Your task to perform on an android device: check battery use Image 0: 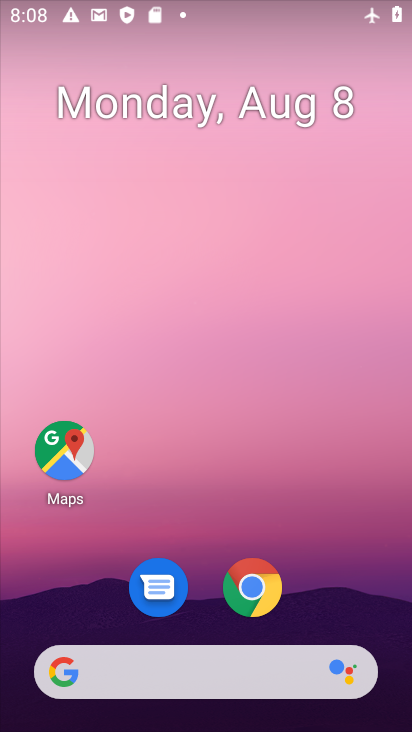
Step 0: press home button
Your task to perform on an android device: check battery use Image 1: 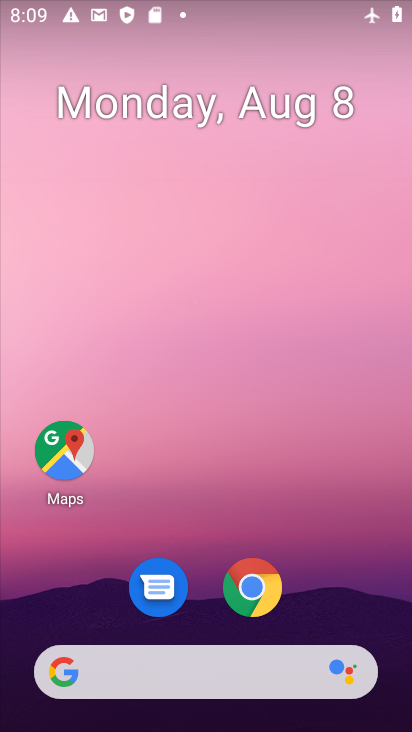
Step 1: drag from (223, 644) to (250, 345)
Your task to perform on an android device: check battery use Image 2: 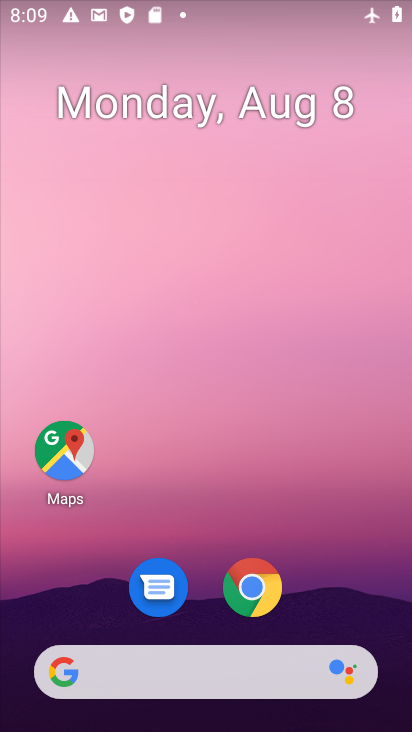
Step 2: drag from (183, 640) to (261, 13)
Your task to perform on an android device: check battery use Image 3: 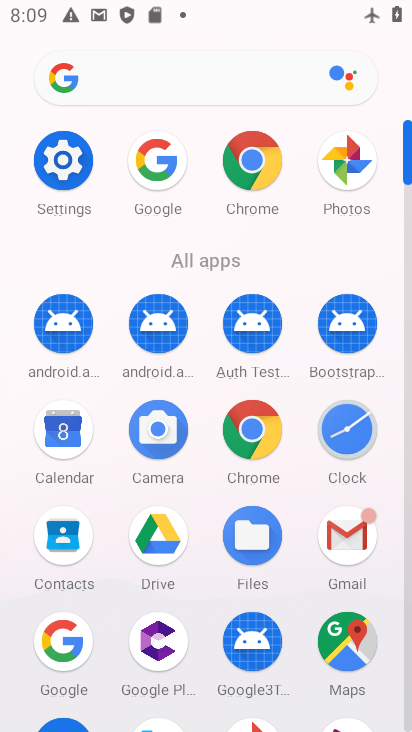
Step 3: click (66, 165)
Your task to perform on an android device: check battery use Image 4: 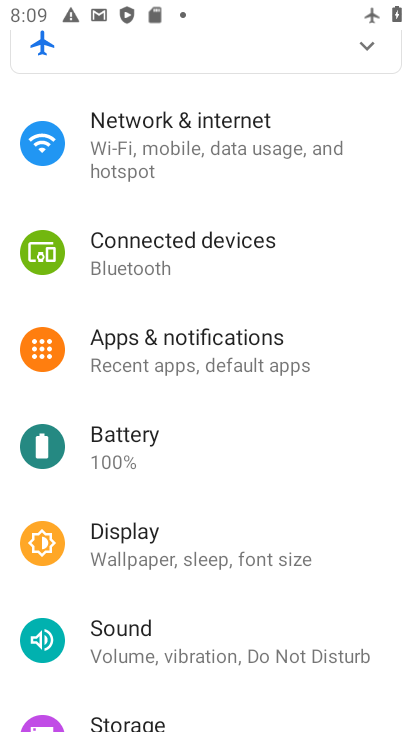
Step 4: click (137, 452)
Your task to perform on an android device: check battery use Image 5: 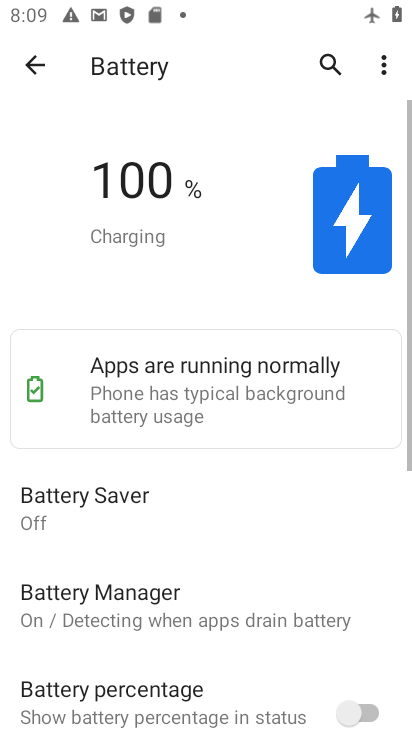
Step 5: click (387, 65)
Your task to perform on an android device: check battery use Image 6: 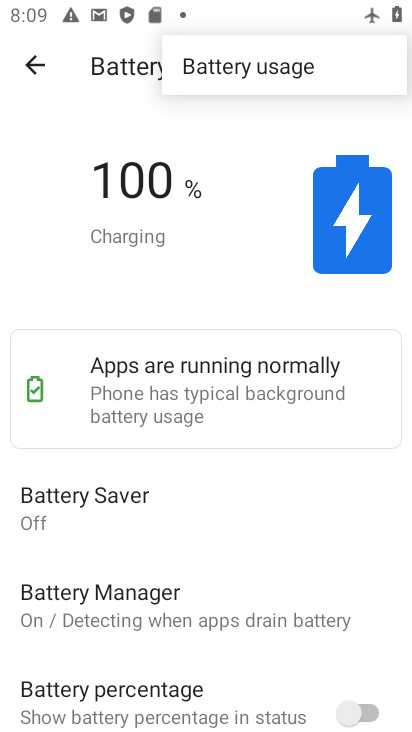
Step 6: click (215, 57)
Your task to perform on an android device: check battery use Image 7: 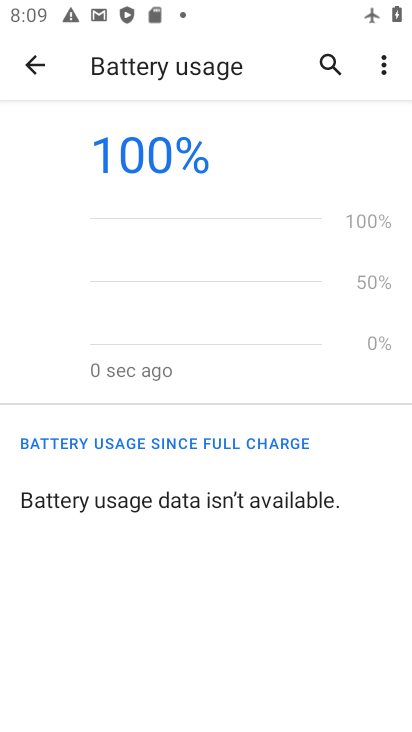
Step 7: task complete